Your task to perform on an android device: turn vacation reply on in the gmail app Image 0: 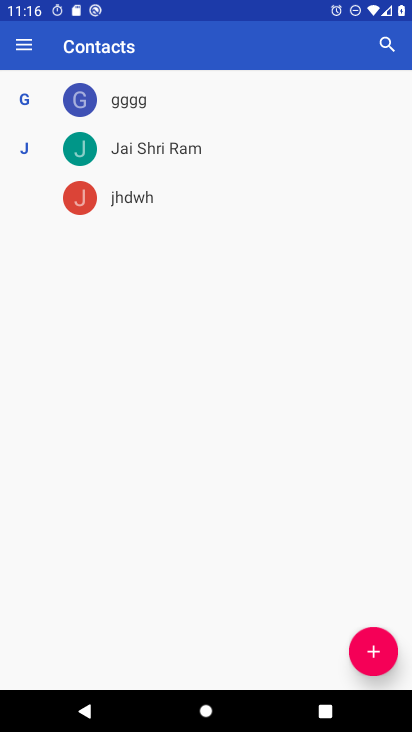
Step 0: press back button
Your task to perform on an android device: turn vacation reply on in the gmail app Image 1: 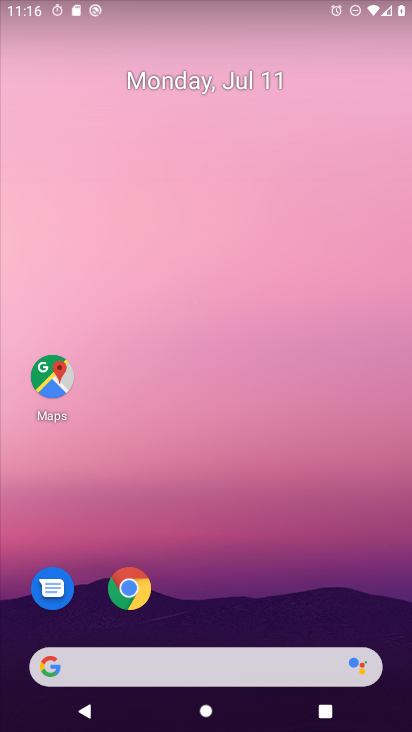
Step 1: drag from (212, 449) to (242, 11)
Your task to perform on an android device: turn vacation reply on in the gmail app Image 2: 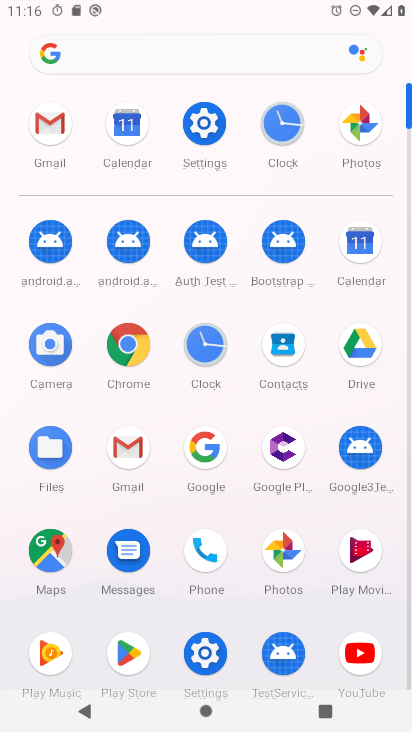
Step 2: click (55, 126)
Your task to perform on an android device: turn vacation reply on in the gmail app Image 3: 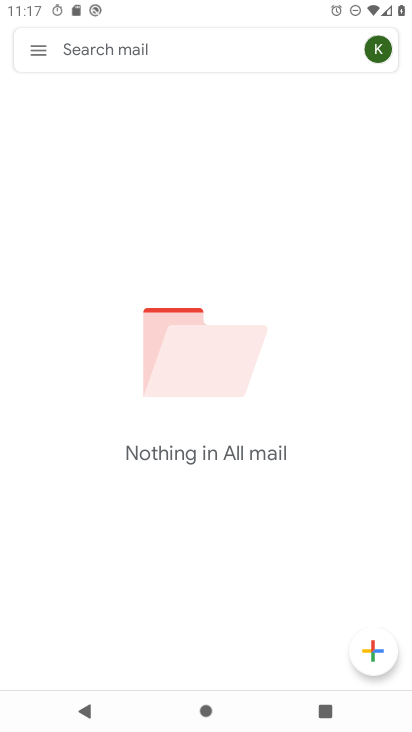
Step 3: click (32, 46)
Your task to perform on an android device: turn vacation reply on in the gmail app Image 4: 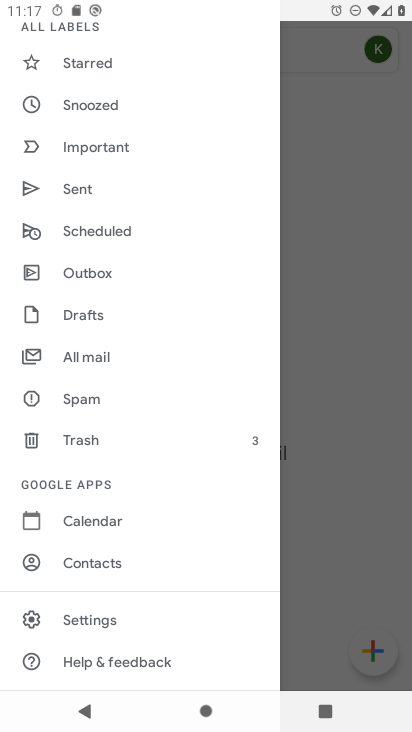
Step 4: click (100, 623)
Your task to perform on an android device: turn vacation reply on in the gmail app Image 5: 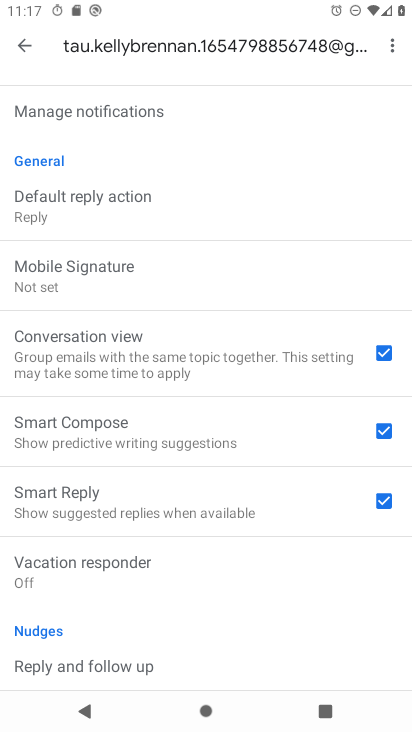
Step 5: click (85, 576)
Your task to perform on an android device: turn vacation reply on in the gmail app Image 6: 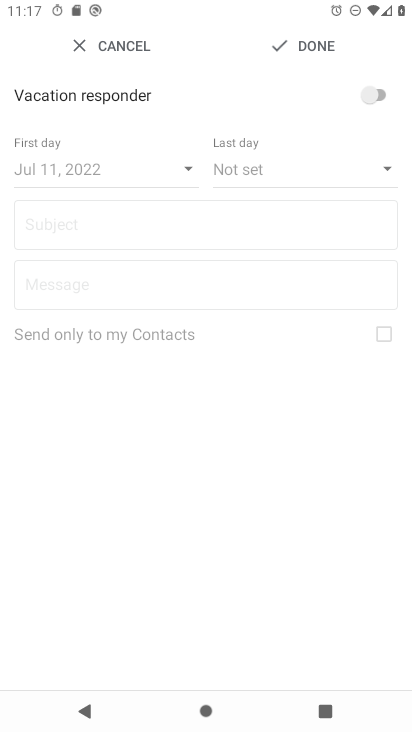
Step 6: click (370, 95)
Your task to perform on an android device: turn vacation reply on in the gmail app Image 7: 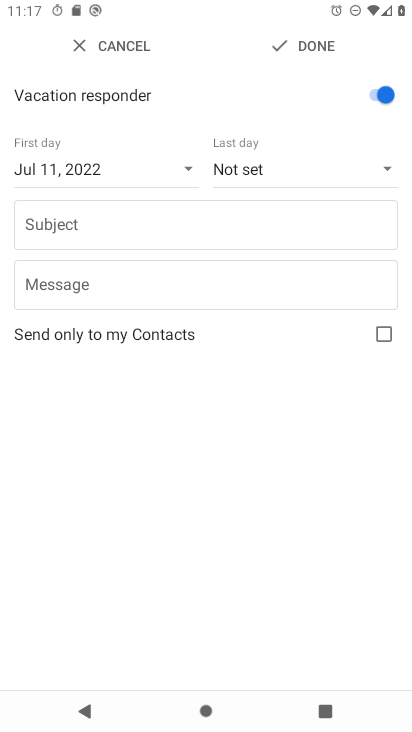
Step 7: task complete